Your task to perform on an android device: delete location history Image 0: 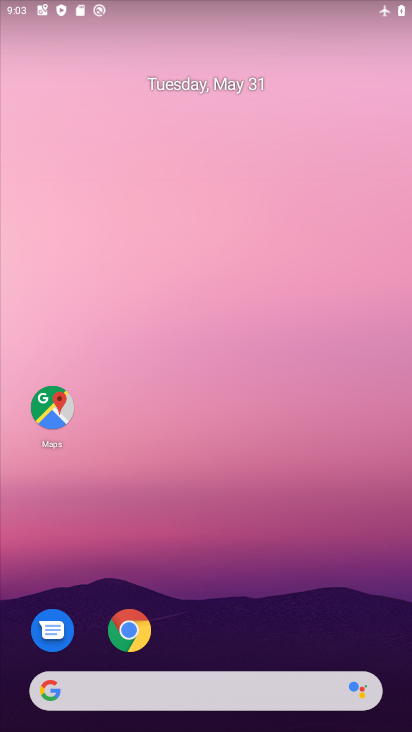
Step 0: drag from (256, 556) to (291, 260)
Your task to perform on an android device: delete location history Image 1: 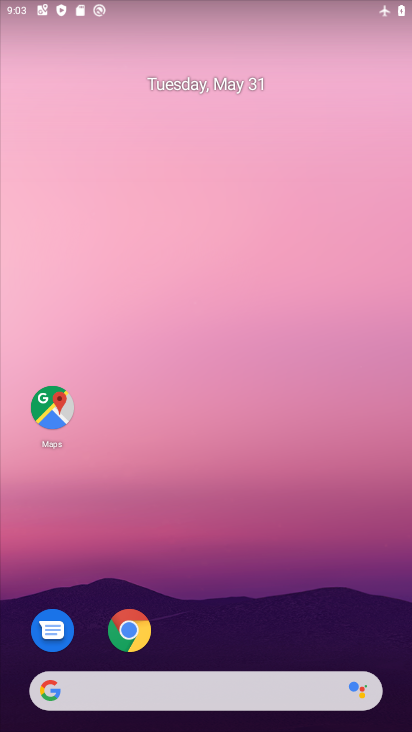
Step 1: drag from (247, 595) to (228, 292)
Your task to perform on an android device: delete location history Image 2: 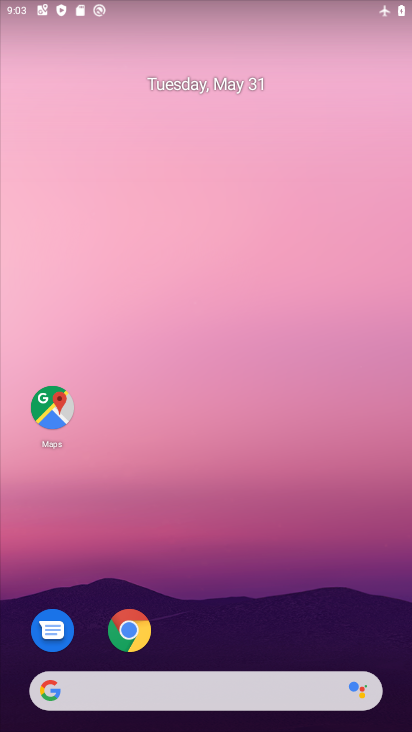
Step 2: drag from (223, 631) to (233, 231)
Your task to perform on an android device: delete location history Image 3: 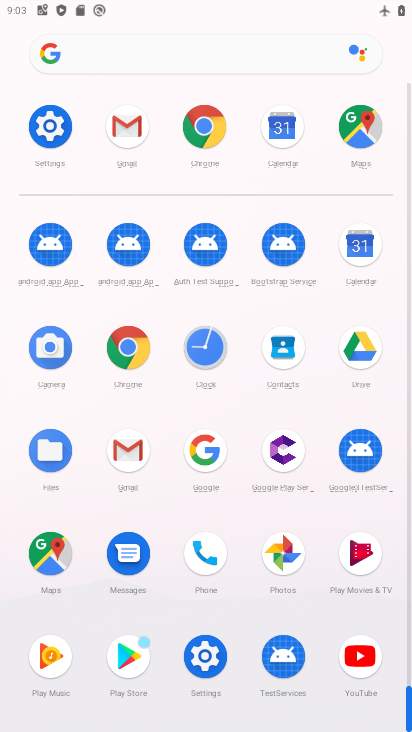
Step 3: click (53, 534)
Your task to perform on an android device: delete location history Image 4: 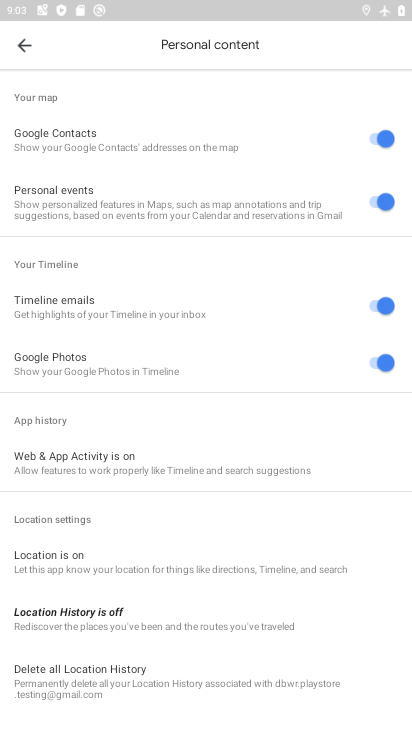
Step 4: click (37, 47)
Your task to perform on an android device: delete location history Image 5: 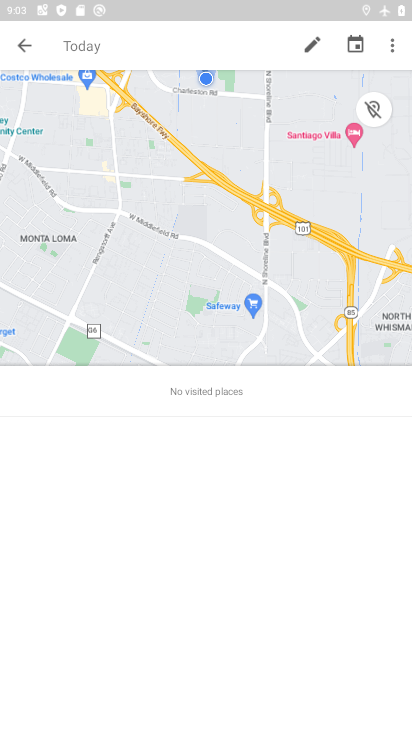
Step 5: click (385, 48)
Your task to perform on an android device: delete location history Image 6: 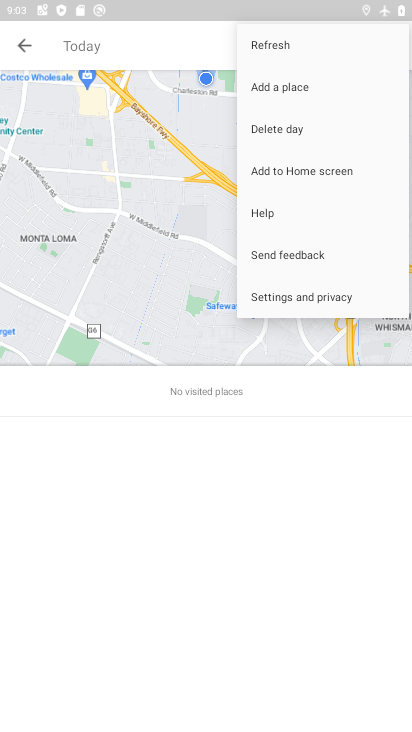
Step 6: click (328, 295)
Your task to perform on an android device: delete location history Image 7: 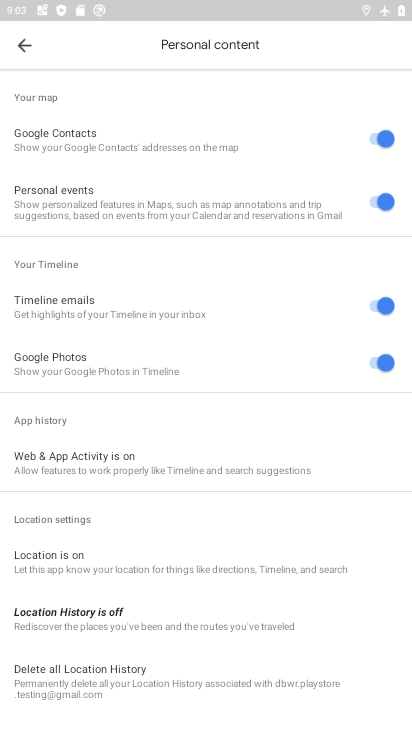
Step 7: drag from (177, 604) to (211, 495)
Your task to perform on an android device: delete location history Image 8: 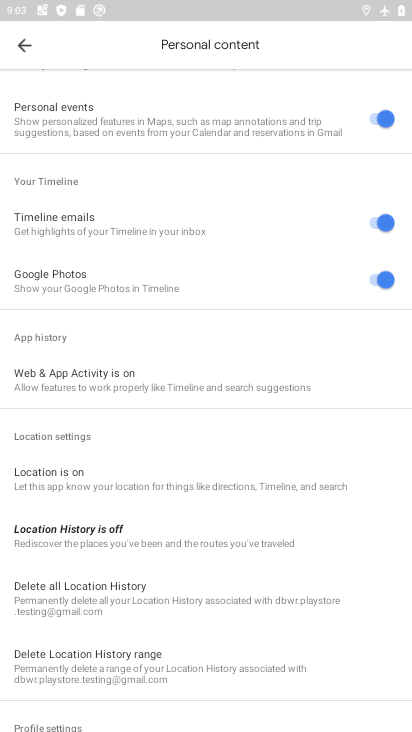
Step 8: click (137, 594)
Your task to perform on an android device: delete location history Image 9: 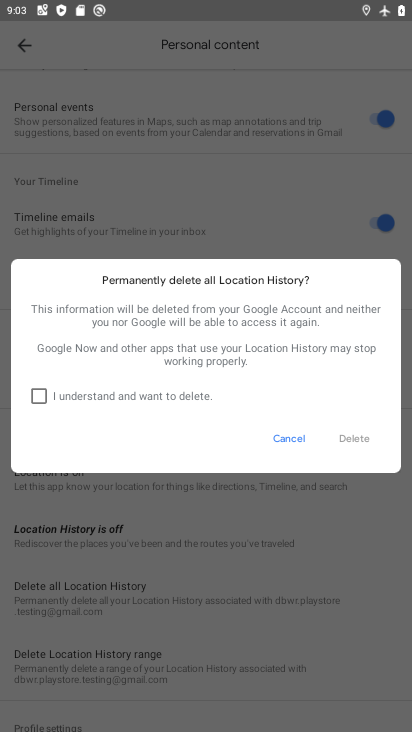
Step 9: click (40, 392)
Your task to perform on an android device: delete location history Image 10: 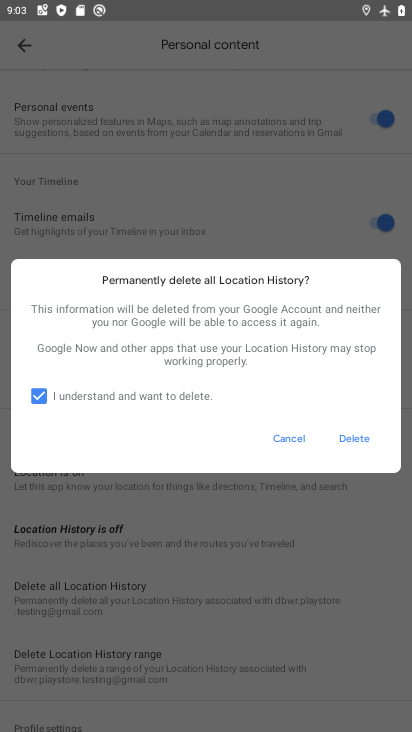
Step 10: click (343, 434)
Your task to perform on an android device: delete location history Image 11: 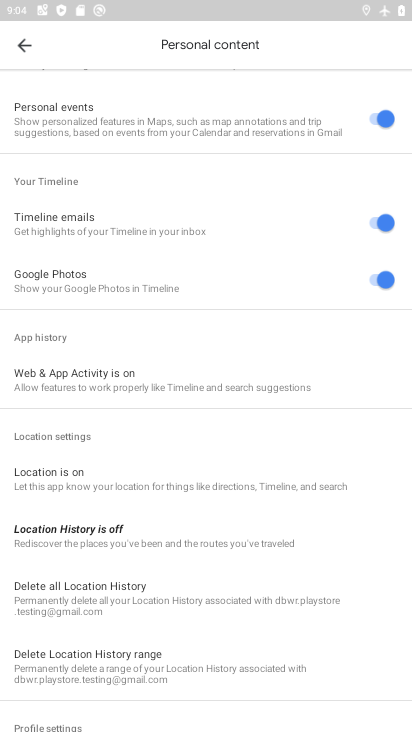
Step 11: task complete